Your task to perform on an android device: Go to accessibility settings Image 0: 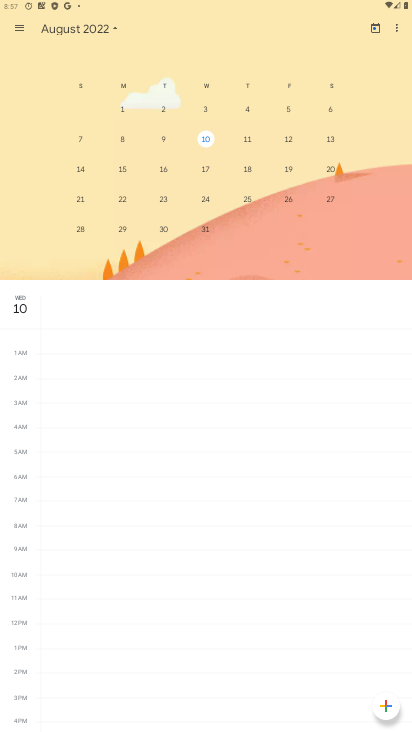
Step 0: press home button
Your task to perform on an android device: Go to accessibility settings Image 1: 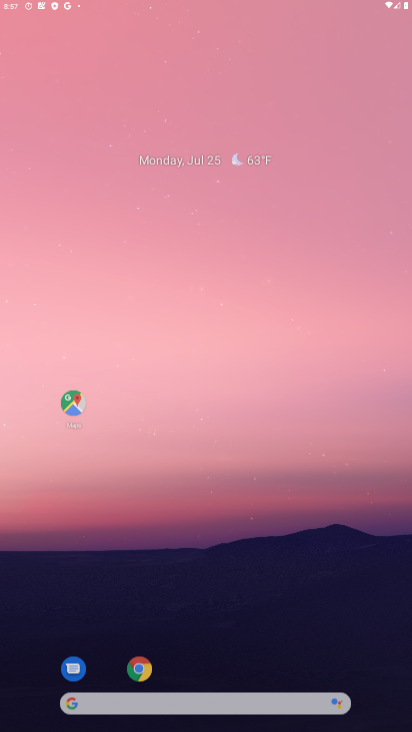
Step 1: drag from (168, 600) to (278, 120)
Your task to perform on an android device: Go to accessibility settings Image 2: 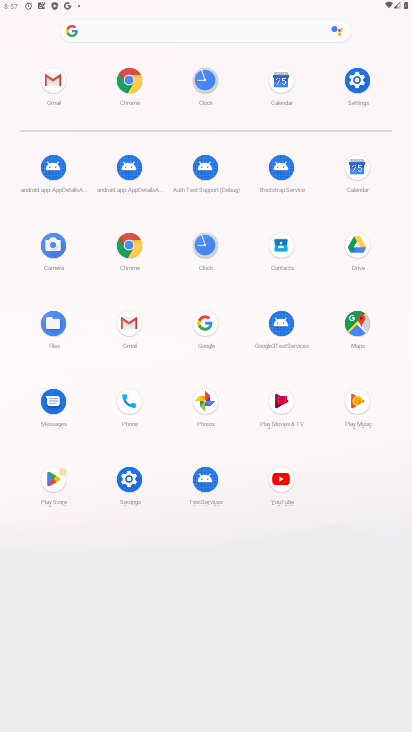
Step 2: click (119, 475)
Your task to perform on an android device: Go to accessibility settings Image 3: 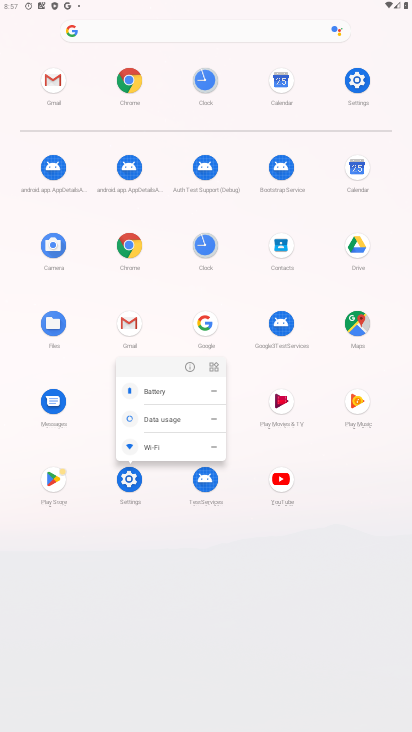
Step 3: click (190, 368)
Your task to perform on an android device: Go to accessibility settings Image 4: 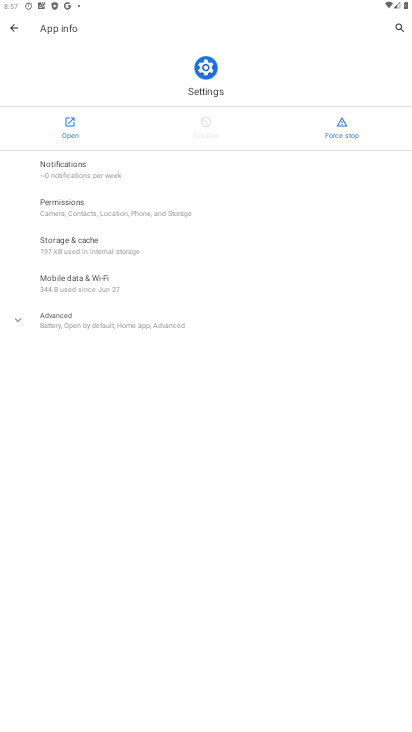
Step 4: click (53, 119)
Your task to perform on an android device: Go to accessibility settings Image 5: 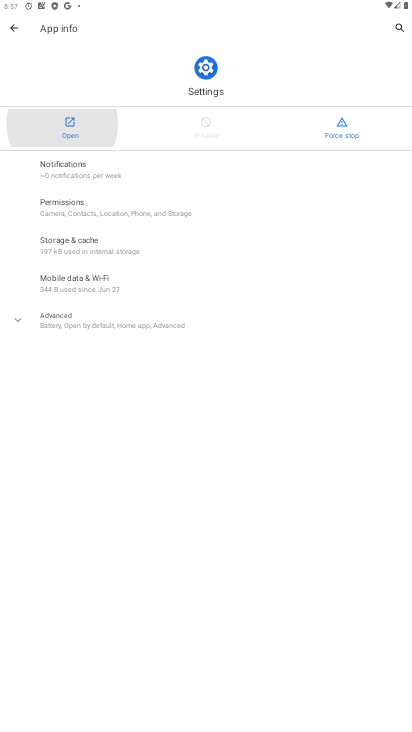
Step 5: click (53, 119)
Your task to perform on an android device: Go to accessibility settings Image 6: 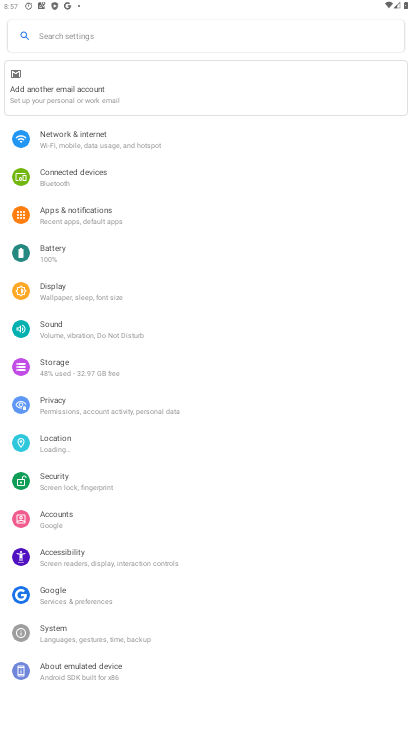
Step 6: drag from (196, 566) to (269, 158)
Your task to perform on an android device: Go to accessibility settings Image 7: 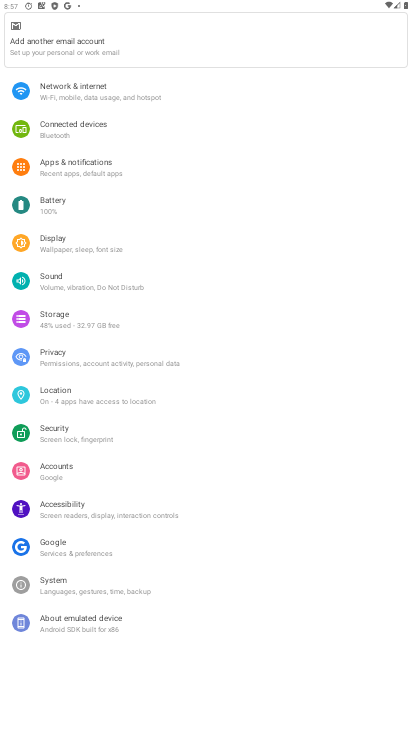
Step 7: click (82, 497)
Your task to perform on an android device: Go to accessibility settings Image 8: 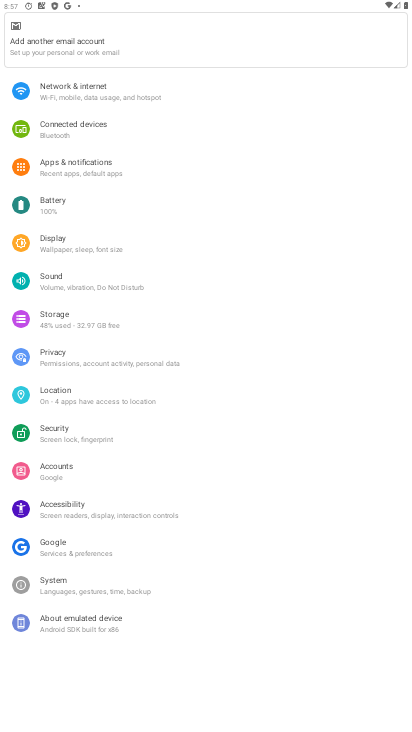
Step 8: click (81, 497)
Your task to perform on an android device: Go to accessibility settings Image 9: 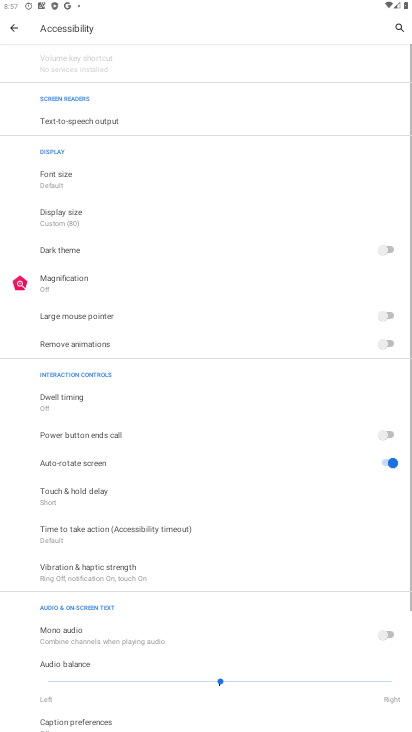
Step 9: task complete